Your task to perform on an android device: find snoozed emails in the gmail app Image 0: 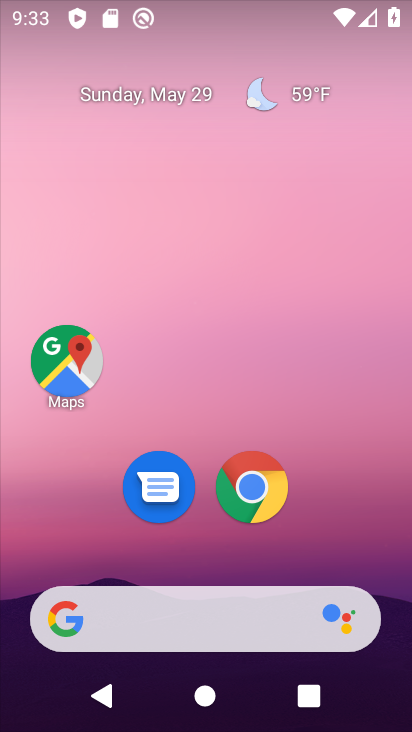
Step 0: drag from (388, 706) to (318, 206)
Your task to perform on an android device: find snoozed emails in the gmail app Image 1: 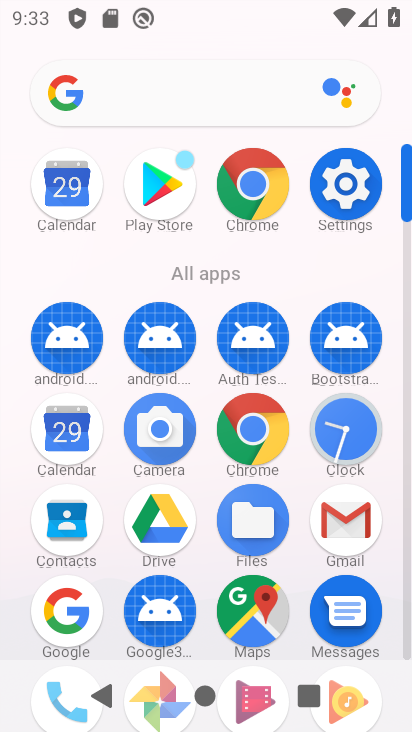
Step 1: click (326, 522)
Your task to perform on an android device: find snoozed emails in the gmail app Image 2: 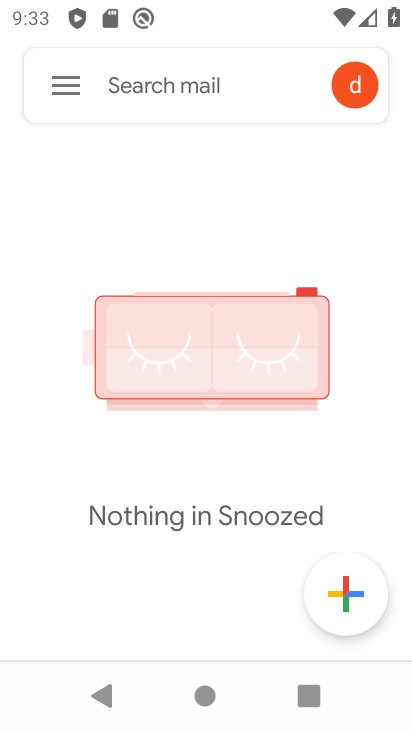
Step 2: task complete